Your task to perform on an android device: turn smart compose on in the gmail app Image 0: 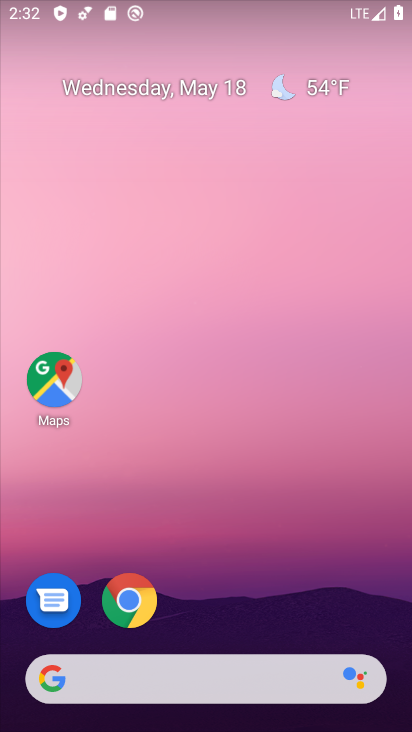
Step 0: drag from (208, 642) to (287, 170)
Your task to perform on an android device: turn smart compose on in the gmail app Image 1: 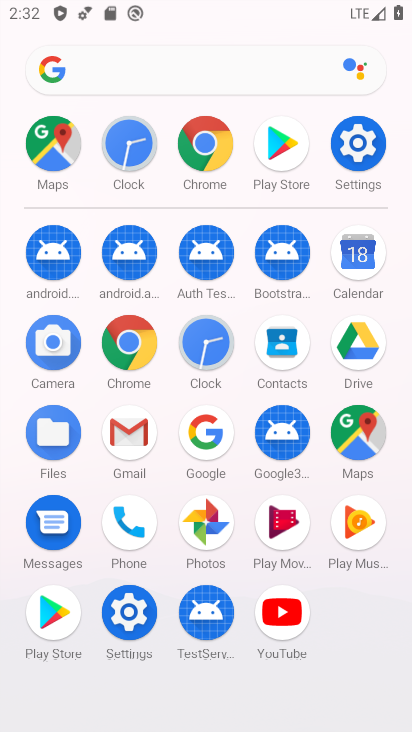
Step 1: click (137, 441)
Your task to perform on an android device: turn smart compose on in the gmail app Image 2: 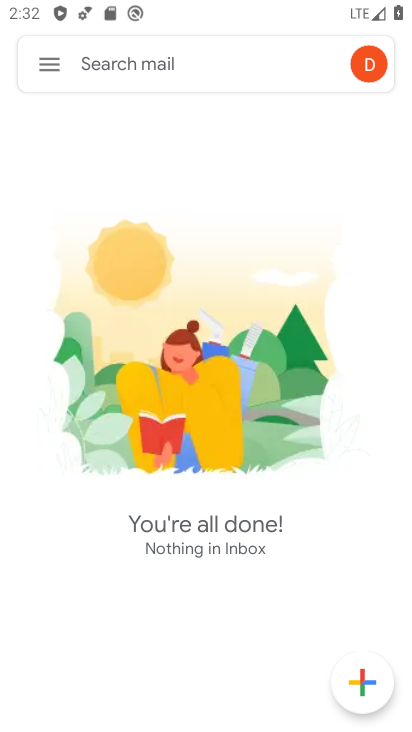
Step 2: click (49, 64)
Your task to perform on an android device: turn smart compose on in the gmail app Image 3: 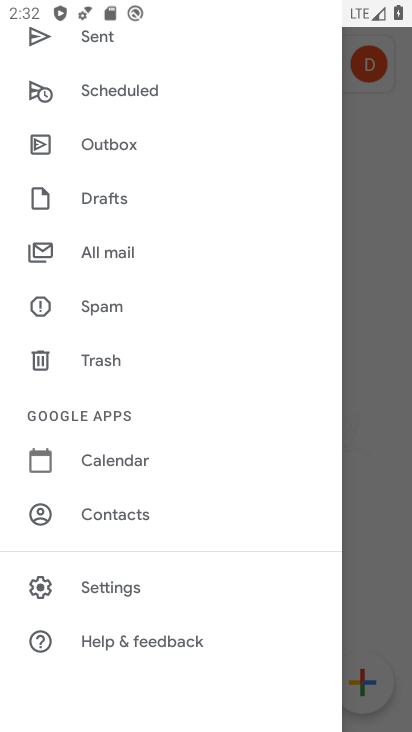
Step 3: click (137, 584)
Your task to perform on an android device: turn smart compose on in the gmail app Image 4: 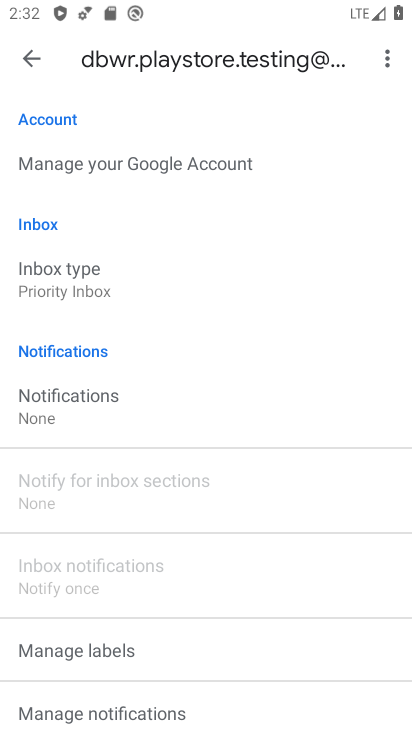
Step 4: task complete